Your task to perform on an android device: Go to Yahoo.com Image 0: 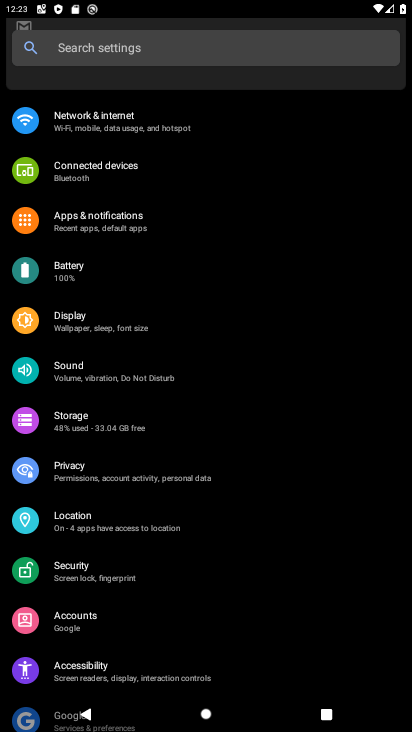
Step 0: press home button
Your task to perform on an android device: Go to Yahoo.com Image 1: 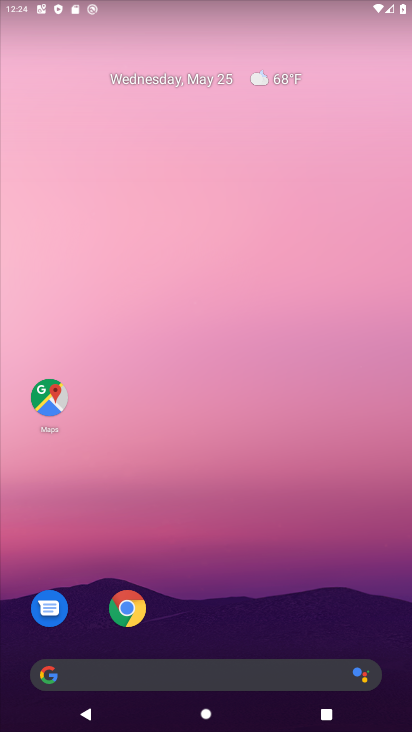
Step 1: drag from (235, 612) to (290, 0)
Your task to perform on an android device: Go to Yahoo.com Image 2: 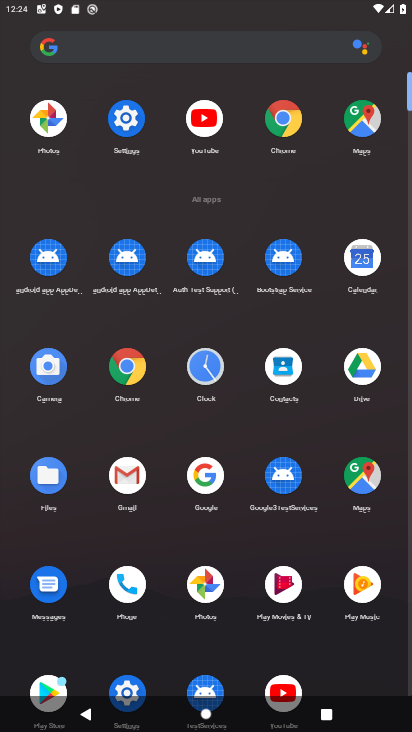
Step 2: click (291, 121)
Your task to perform on an android device: Go to Yahoo.com Image 3: 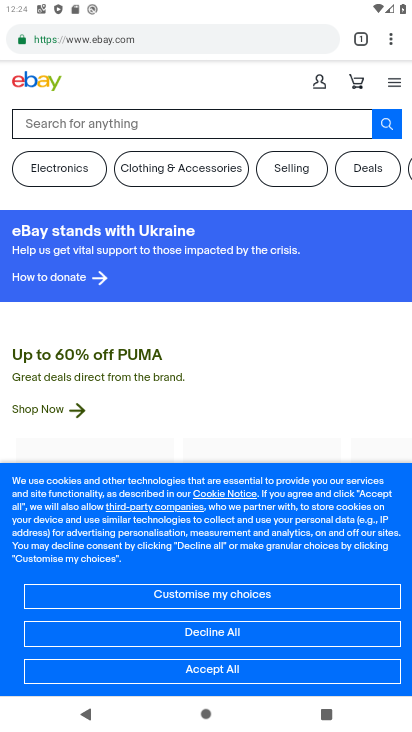
Step 3: click (148, 38)
Your task to perform on an android device: Go to Yahoo.com Image 4: 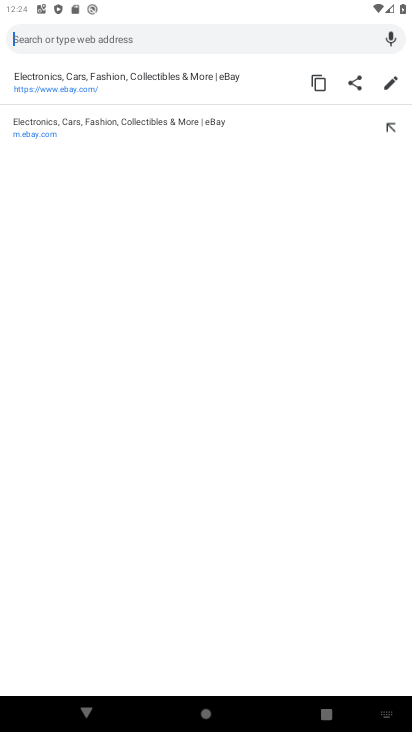
Step 4: type "yahoo.com"
Your task to perform on an android device: Go to Yahoo.com Image 5: 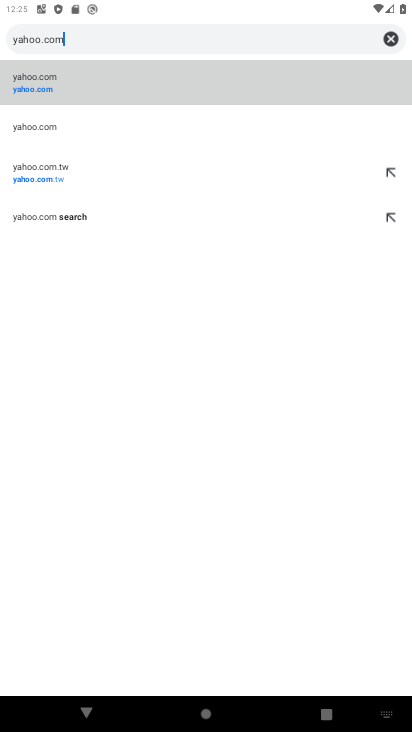
Step 5: click (156, 102)
Your task to perform on an android device: Go to Yahoo.com Image 6: 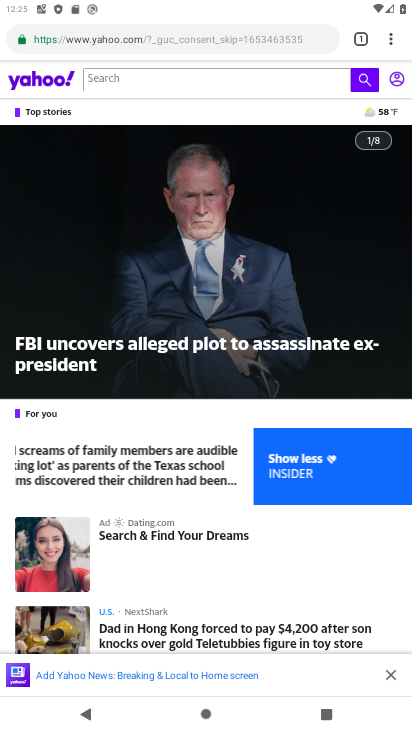
Step 6: task complete